Your task to perform on an android device: What's the weather going to be tomorrow? Image 0: 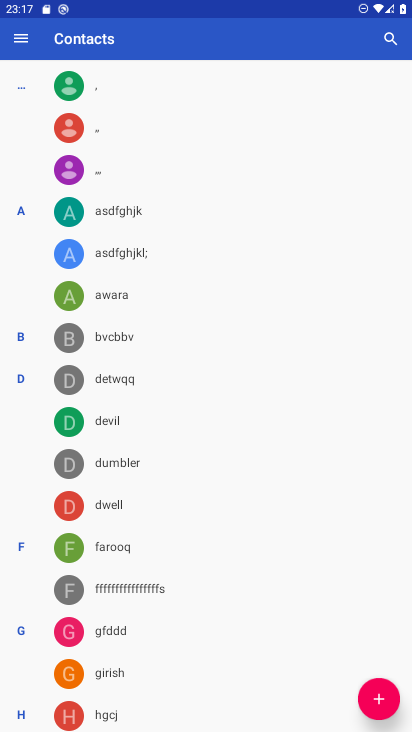
Step 0: press home button
Your task to perform on an android device: What's the weather going to be tomorrow? Image 1: 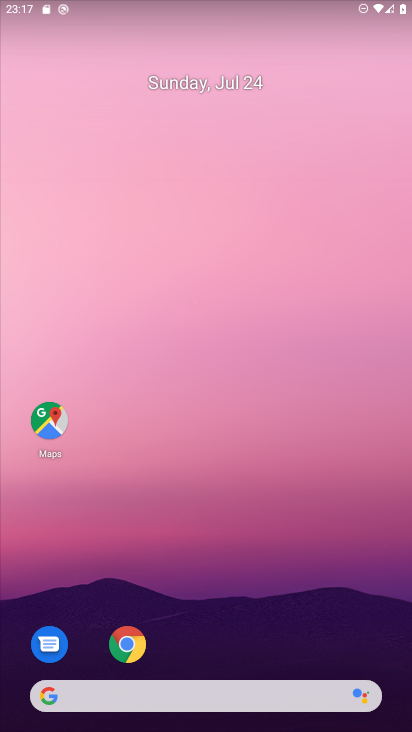
Step 1: click (141, 697)
Your task to perform on an android device: What's the weather going to be tomorrow? Image 2: 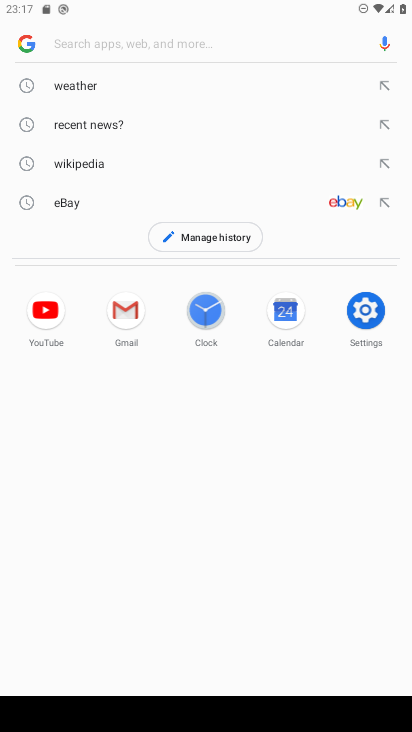
Step 2: click (77, 85)
Your task to perform on an android device: What's the weather going to be tomorrow? Image 3: 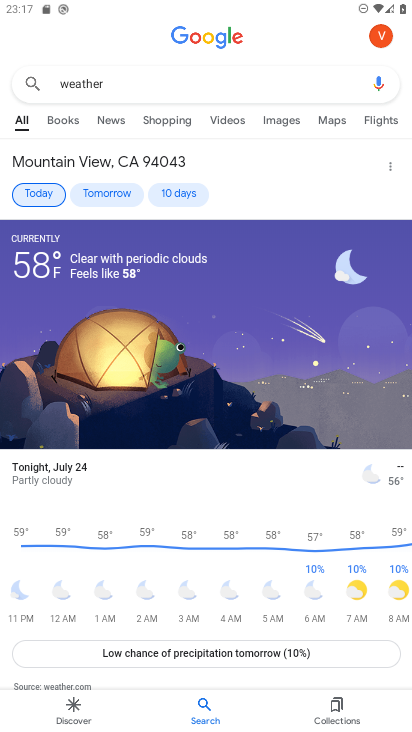
Step 3: click (103, 182)
Your task to perform on an android device: What's the weather going to be tomorrow? Image 4: 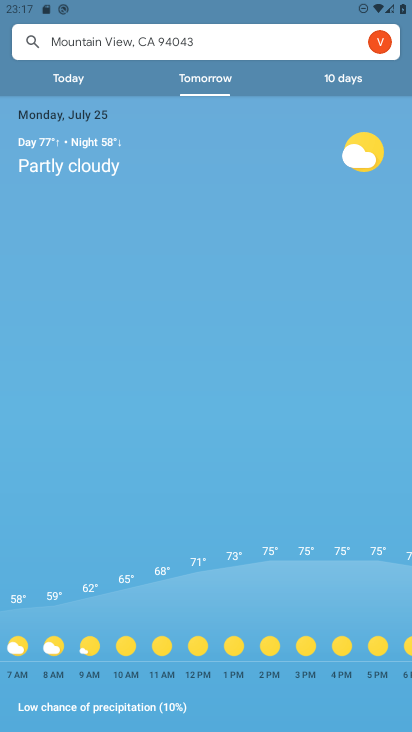
Step 4: task complete